Your task to perform on an android device: What's a good restaurant in Phoenix? Image 0: 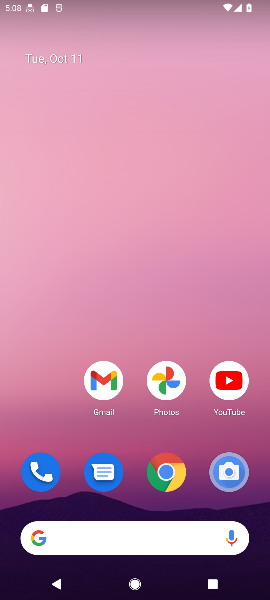
Step 0: click (157, 479)
Your task to perform on an android device: What's a good restaurant in Phoenix? Image 1: 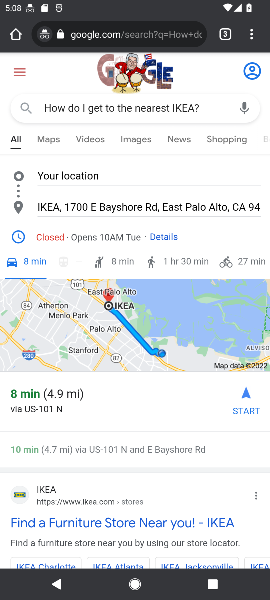
Step 1: click (193, 108)
Your task to perform on an android device: What's a good restaurant in Phoenix? Image 2: 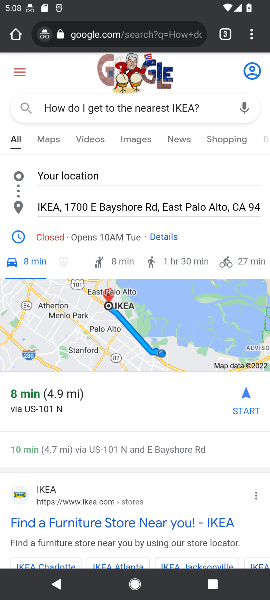
Step 2: click (193, 108)
Your task to perform on an android device: What's a good restaurant in Phoenix? Image 3: 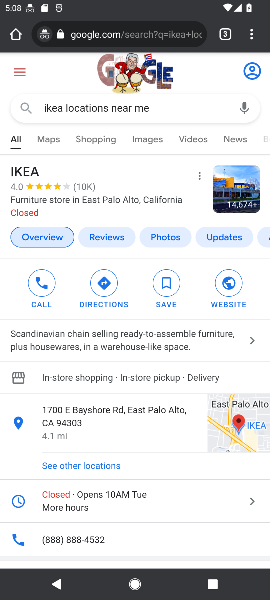
Step 3: click (152, 37)
Your task to perform on an android device: What's a good restaurant in Phoenix? Image 4: 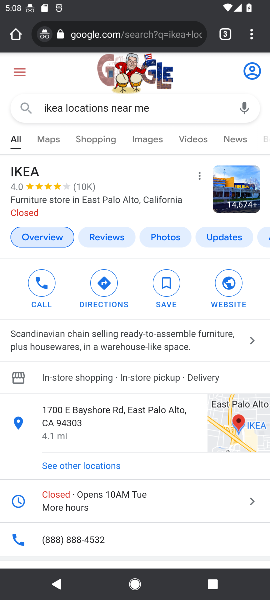
Step 4: click (152, 37)
Your task to perform on an android device: What's a good restaurant in Phoenix? Image 5: 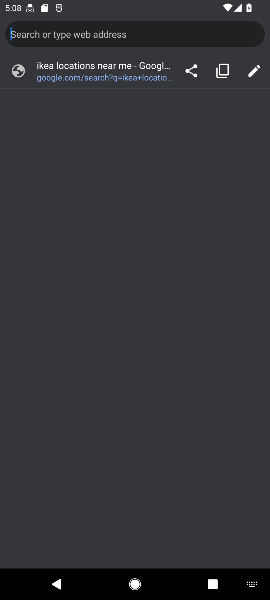
Step 5: type "What's a good restaurant in Phoenix?"
Your task to perform on an android device: What's a good restaurant in Phoenix? Image 6: 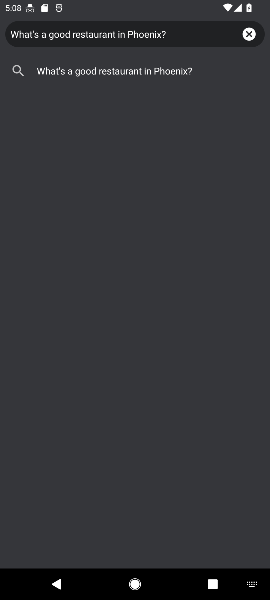
Step 6: click (69, 81)
Your task to perform on an android device: What's a good restaurant in Phoenix? Image 7: 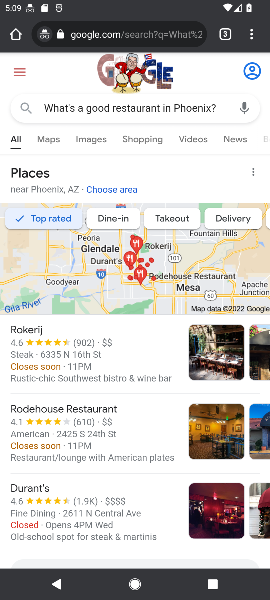
Step 7: task complete